Your task to perform on an android device: Open Google Maps and go to "Timeline" Image 0: 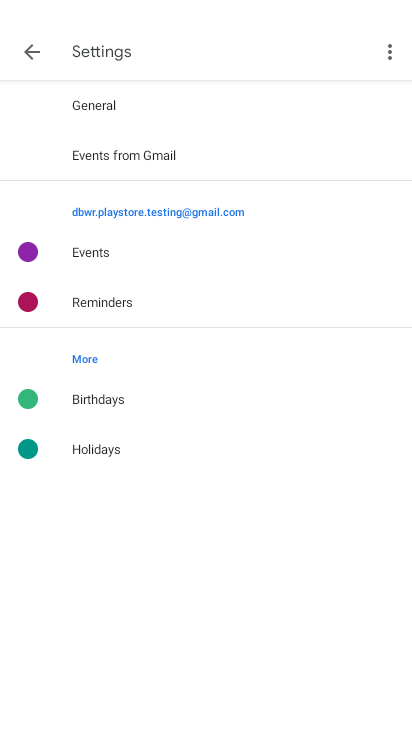
Step 0: press home button
Your task to perform on an android device: Open Google Maps and go to "Timeline" Image 1: 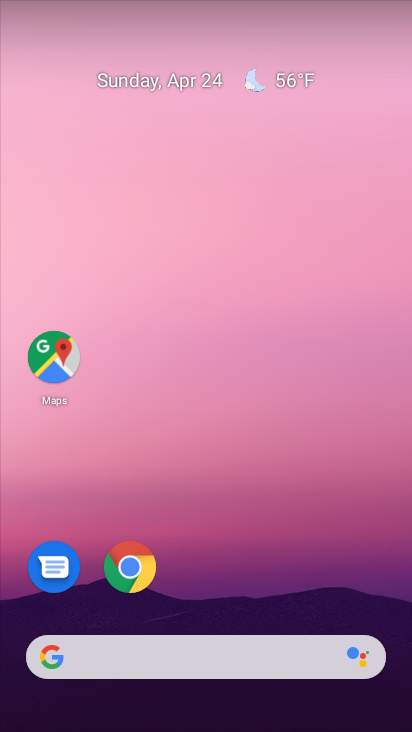
Step 1: click (381, 149)
Your task to perform on an android device: Open Google Maps and go to "Timeline" Image 2: 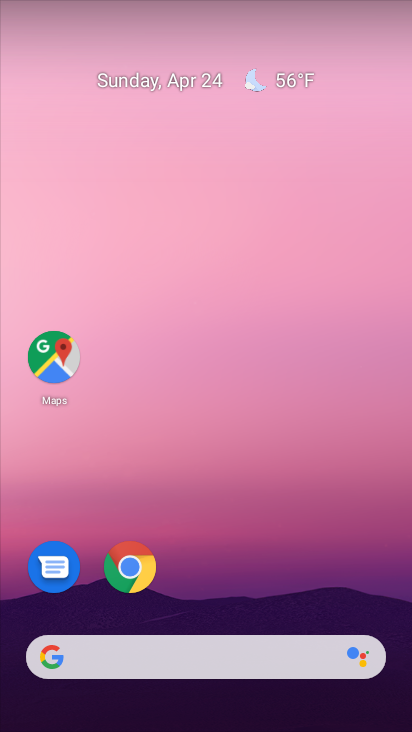
Step 2: click (58, 352)
Your task to perform on an android device: Open Google Maps and go to "Timeline" Image 3: 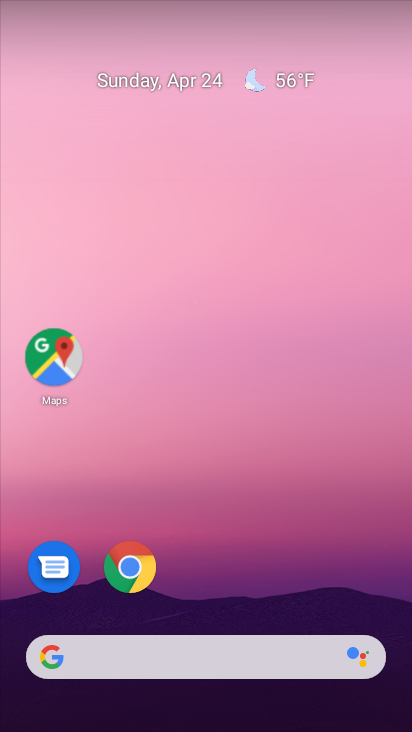
Step 3: click (56, 352)
Your task to perform on an android device: Open Google Maps and go to "Timeline" Image 4: 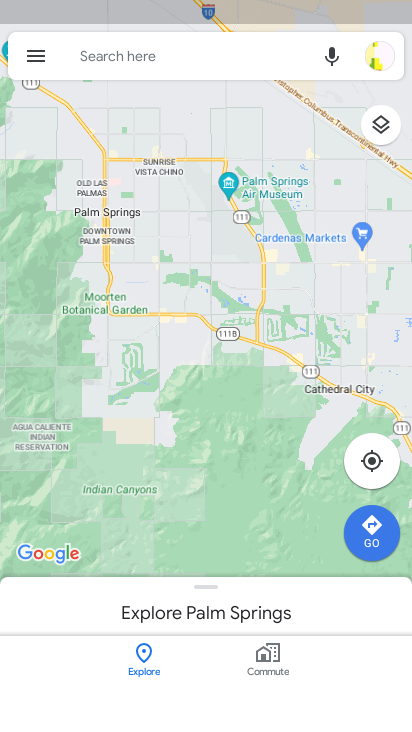
Step 4: click (37, 51)
Your task to perform on an android device: Open Google Maps and go to "Timeline" Image 5: 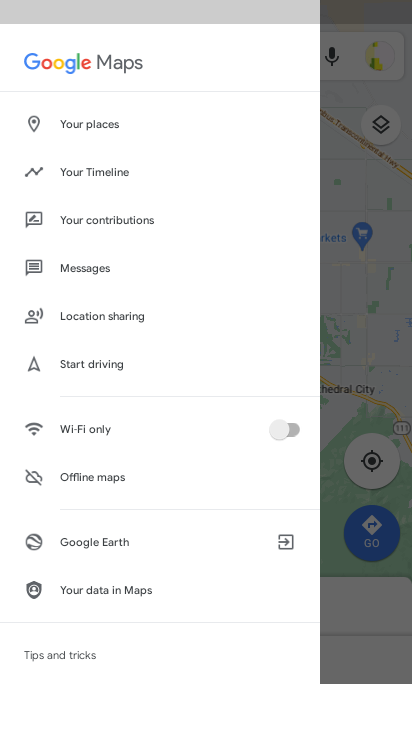
Step 5: click (82, 164)
Your task to perform on an android device: Open Google Maps and go to "Timeline" Image 6: 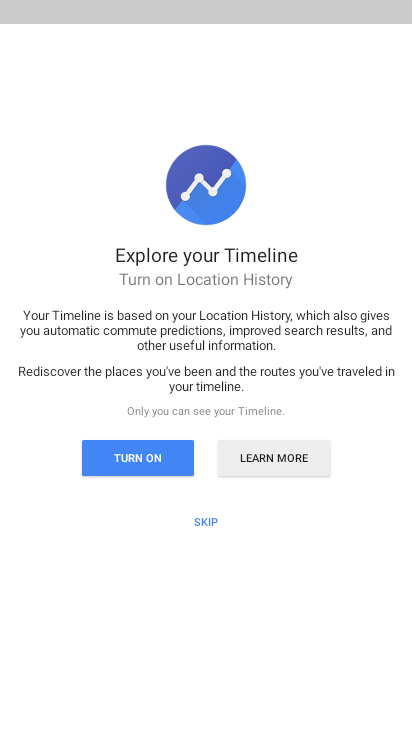
Step 6: click (153, 464)
Your task to perform on an android device: Open Google Maps and go to "Timeline" Image 7: 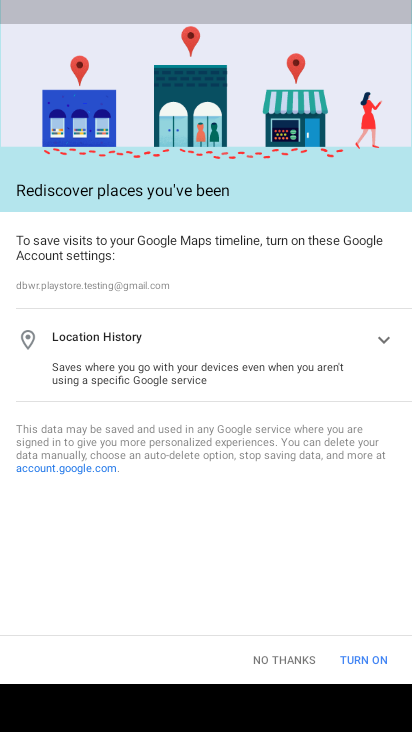
Step 7: click (349, 656)
Your task to perform on an android device: Open Google Maps and go to "Timeline" Image 8: 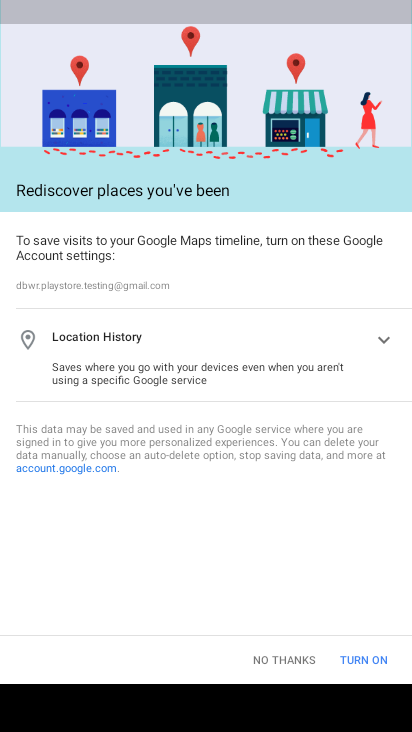
Step 8: click (357, 649)
Your task to perform on an android device: Open Google Maps and go to "Timeline" Image 9: 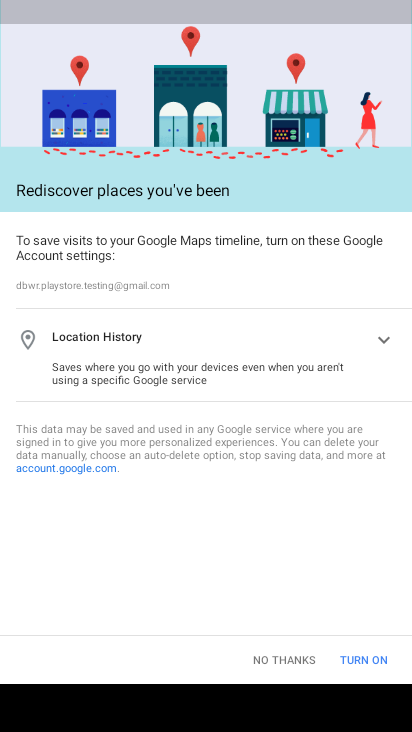
Step 9: click (373, 655)
Your task to perform on an android device: Open Google Maps and go to "Timeline" Image 10: 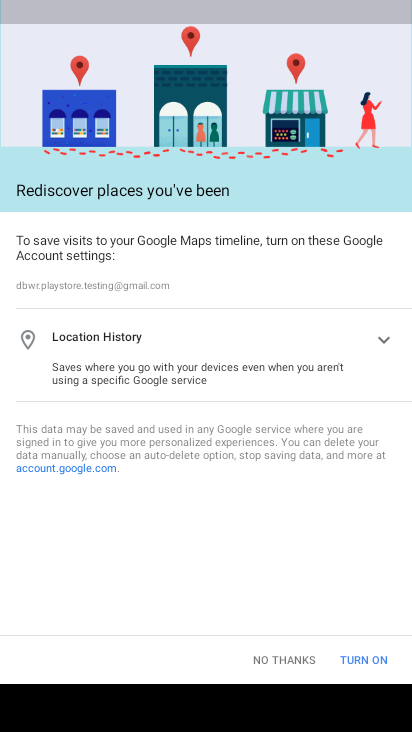
Step 10: task complete